Your task to perform on an android device: turn off picture-in-picture Image 0: 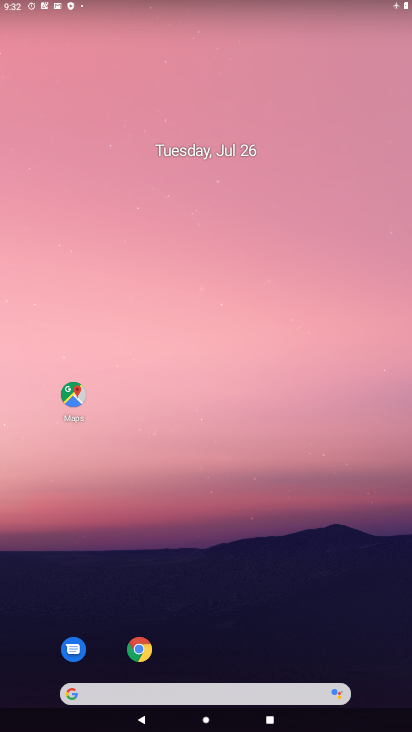
Step 0: drag from (201, 583) to (308, 1)
Your task to perform on an android device: turn off picture-in-picture Image 1: 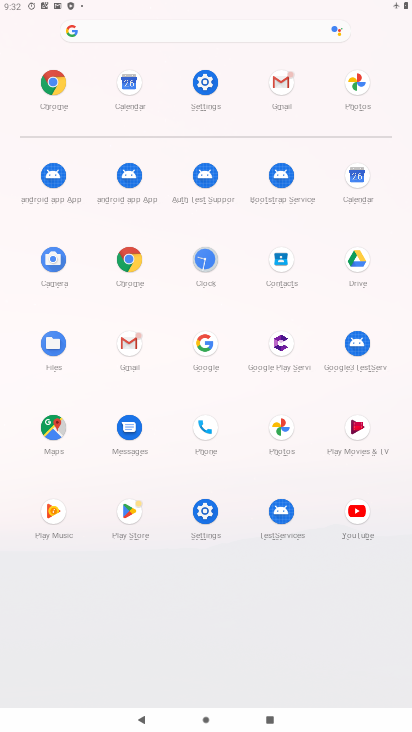
Step 1: click (207, 507)
Your task to perform on an android device: turn off picture-in-picture Image 2: 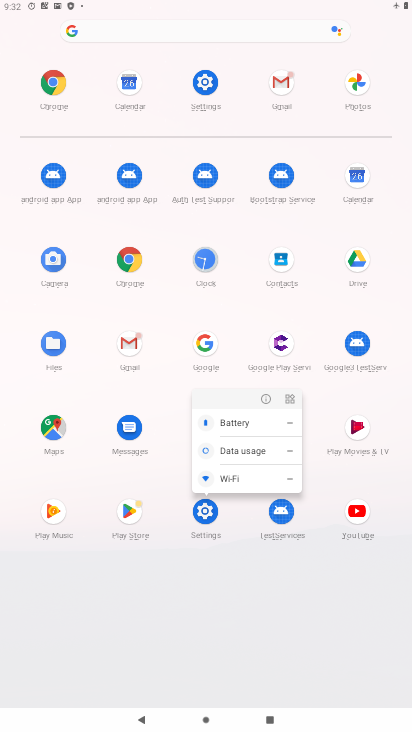
Step 2: click (256, 388)
Your task to perform on an android device: turn off picture-in-picture Image 3: 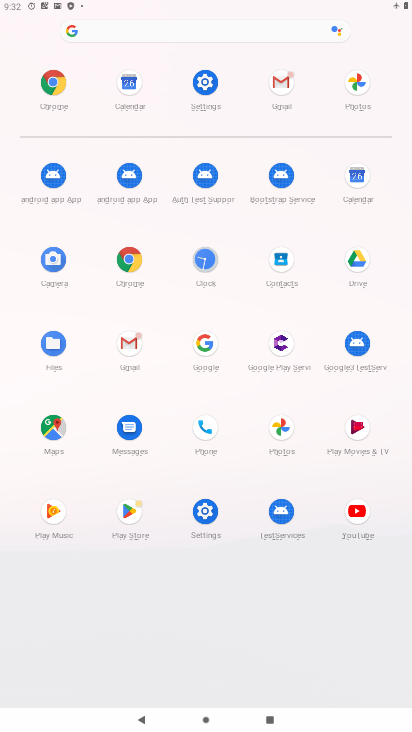
Step 3: click (267, 396)
Your task to perform on an android device: turn off picture-in-picture Image 4: 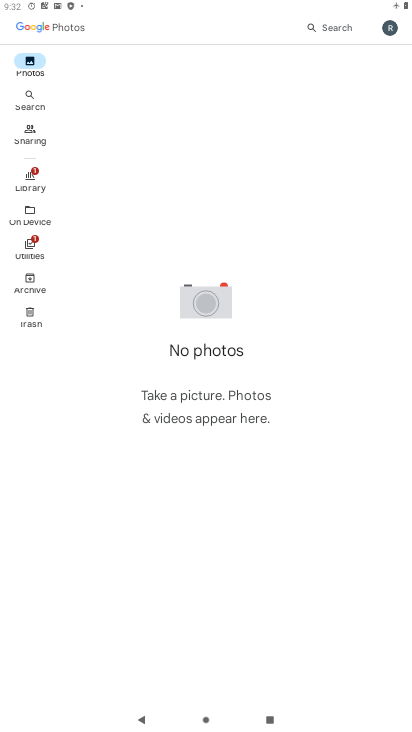
Step 4: press home button
Your task to perform on an android device: turn off picture-in-picture Image 5: 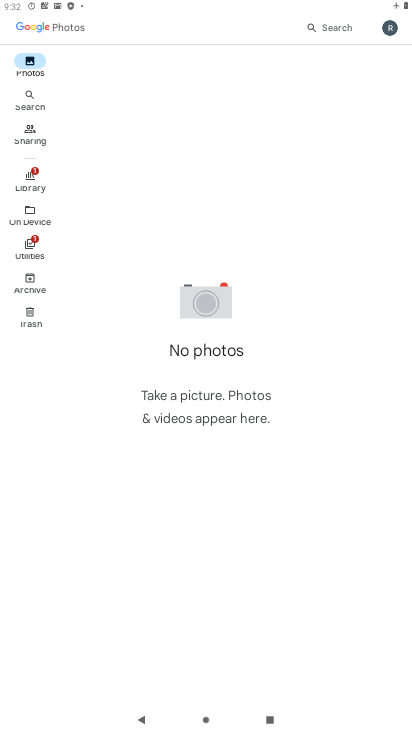
Step 5: press home button
Your task to perform on an android device: turn off picture-in-picture Image 6: 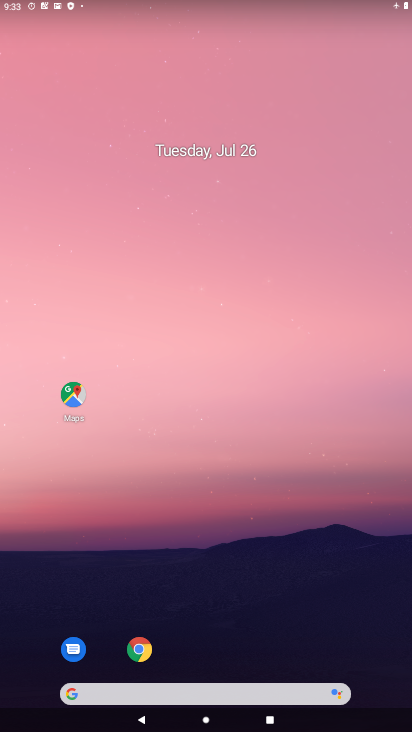
Step 6: drag from (176, 621) to (232, 136)
Your task to perform on an android device: turn off picture-in-picture Image 7: 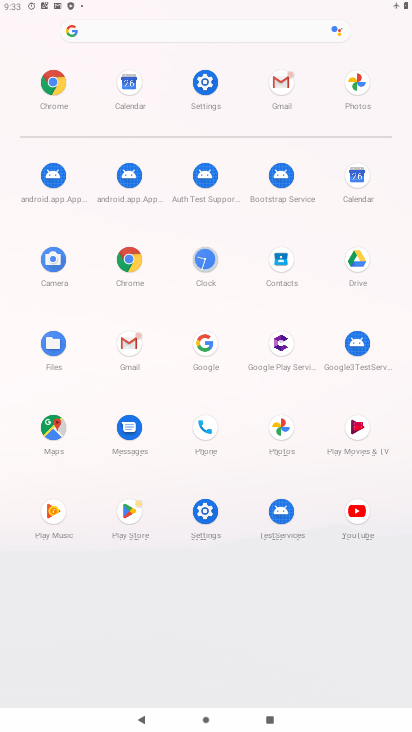
Step 7: click (210, 77)
Your task to perform on an android device: turn off picture-in-picture Image 8: 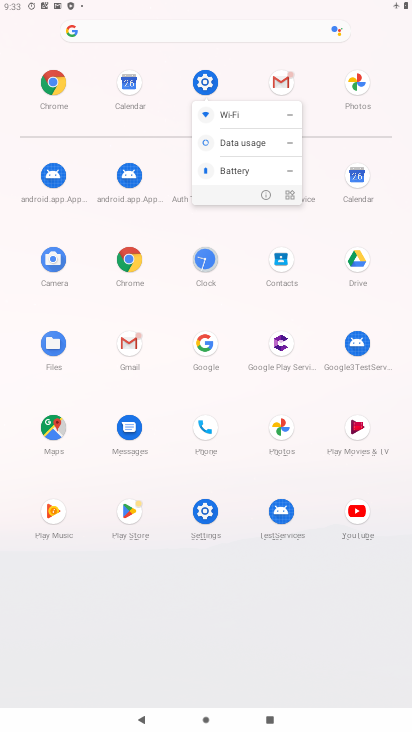
Step 8: click (262, 189)
Your task to perform on an android device: turn off picture-in-picture Image 9: 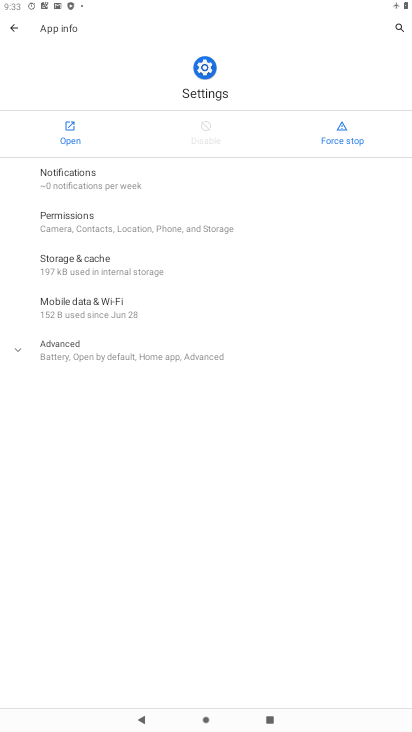
Step 9: click (61, 136)
Your task to perform on an android device: turn off picture-in-picture Image 10: 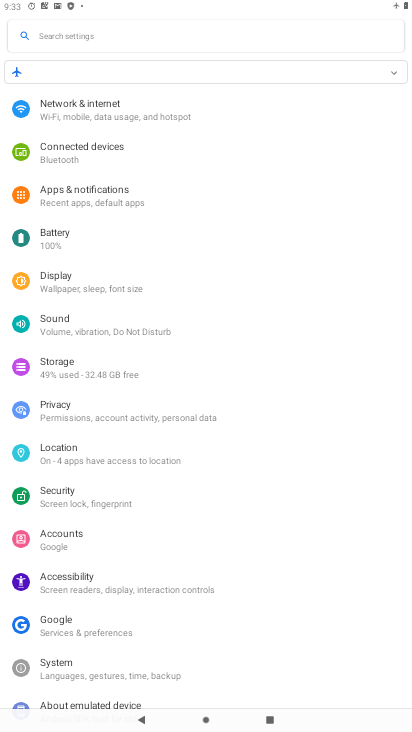
Step 10: click (106, 201)
Your task to perform on an android device: turn off picture-in-picture Image 11: 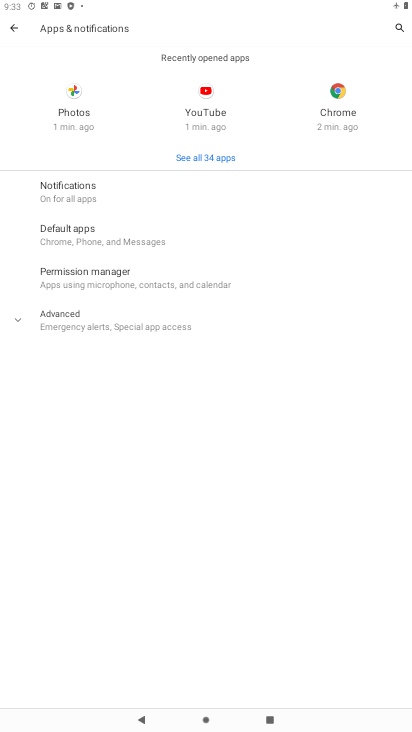
Step 11: click (75, 301)
Your task to perform on an android device: turn off picture-in-picture Image 12: 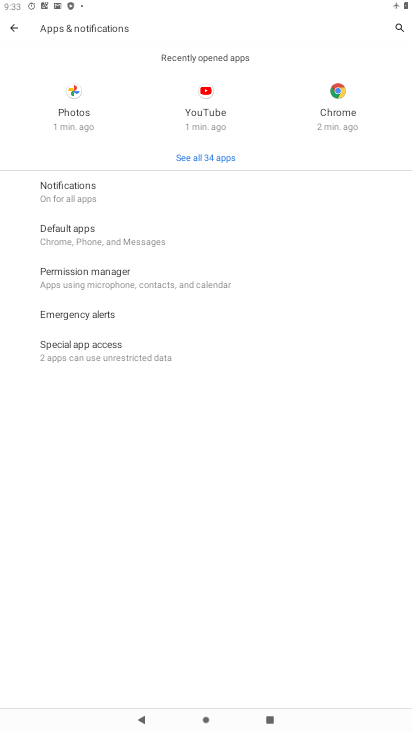
Step 12: click (88, 338)
Your task to perform on an android device: turn off picture-in-picture Image 13: 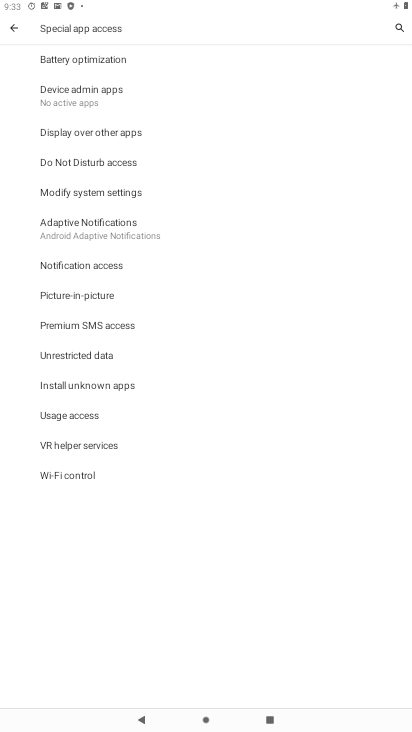
Step 13: click (76, 293)
Your task to perform on an android device: turn off picture-in-picture Image 14: 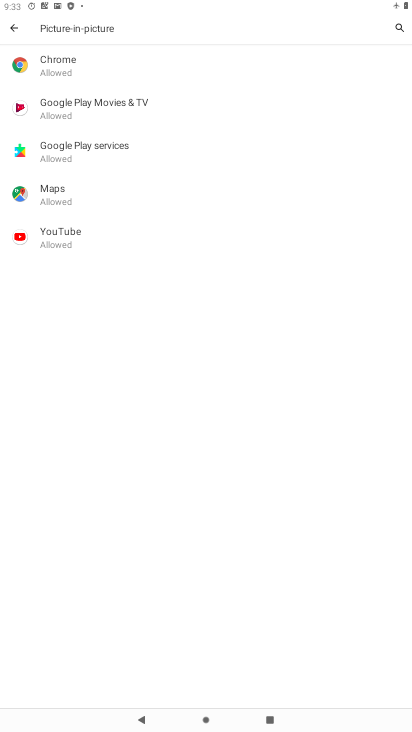
Step 14: click (102, 58)
Your task to perform on an android device: turn off picture-in-picture Image 15: 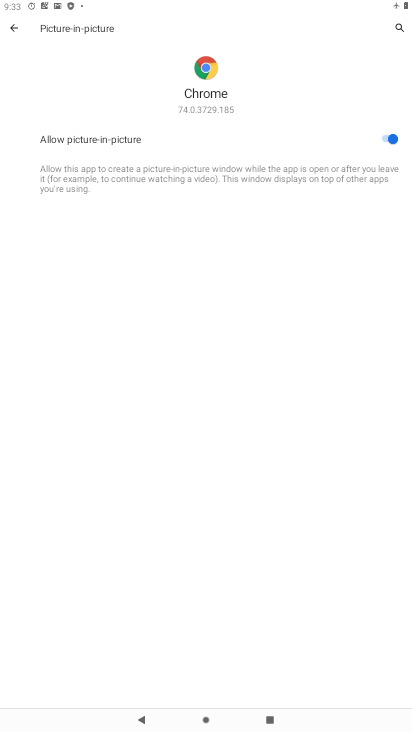
Step 15: click (388, 136)
Your task to perform on an android device: turn off picture-in-picture Image 16: 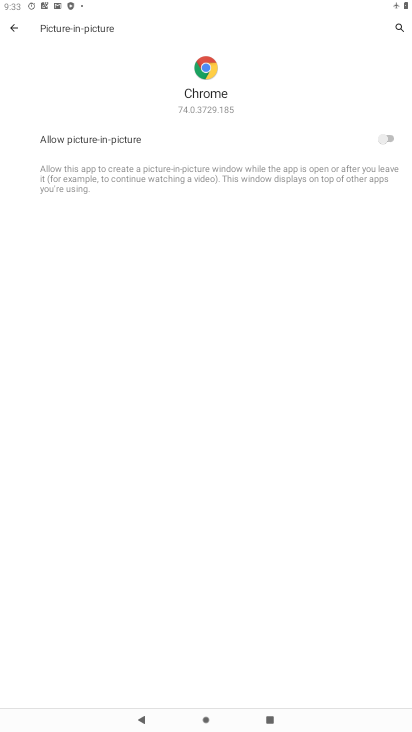
Step 16: task complete